Your task to perform on an android device: Go to network settings Image 0: 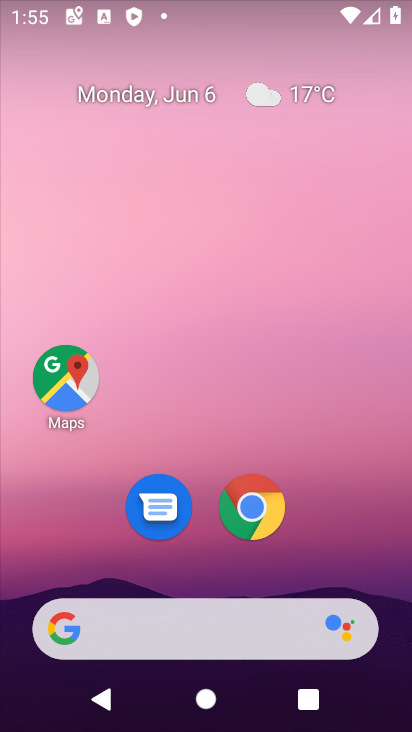
Step 0: drag from (222, 413) to (236, 1)
Your task to perform on an android device: Go to network settings Image 1: 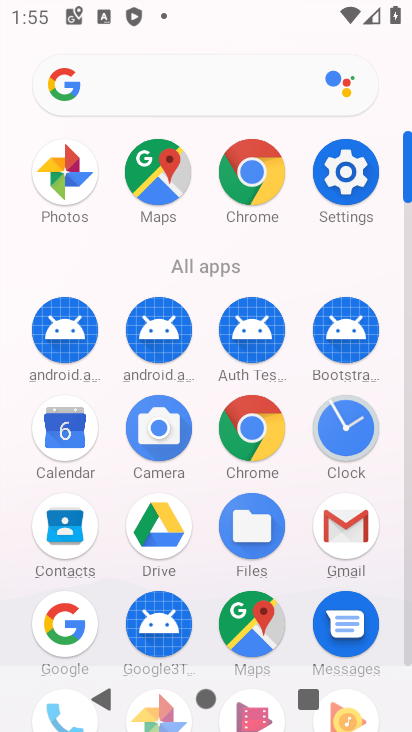
Step 1: click (341, 173)
Your task to perform on an android device: Go to network settings Image 2: 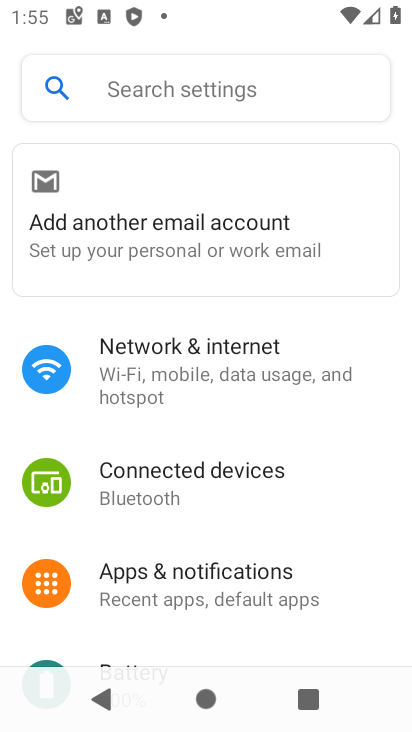
Step 2: click (227, 350)
Your task to perform on an android device: Go to network settings Image 3: 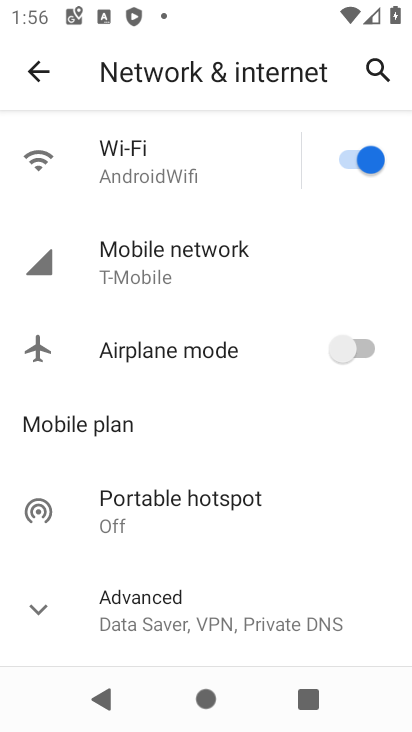
Step 3: task complete